Your task to perform on an android device: set the stopwatch Image 0: 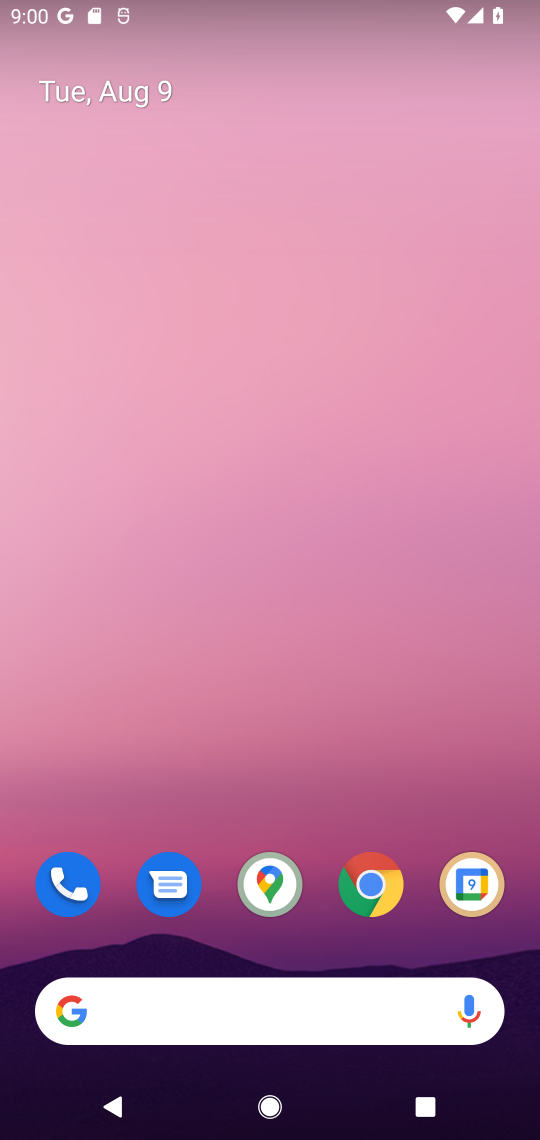
Step 0: drag from (294, 937) to (341, 320)
Your task to perform on an android device: set the stopwatch Image 1: 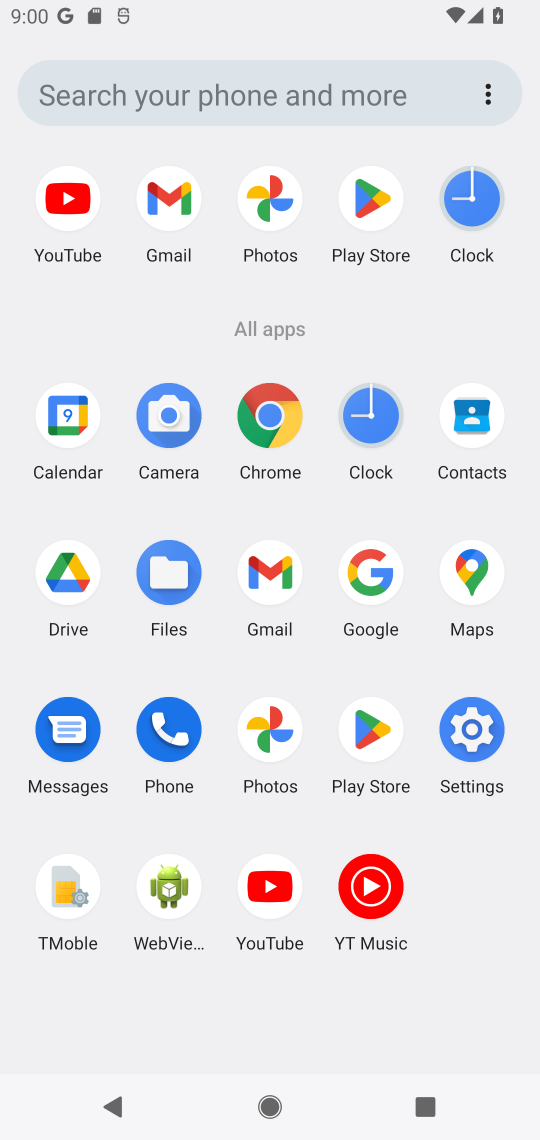
Step 1: click (381, 408)
Your task to perform on an android device: set the stopwatch Image 2: 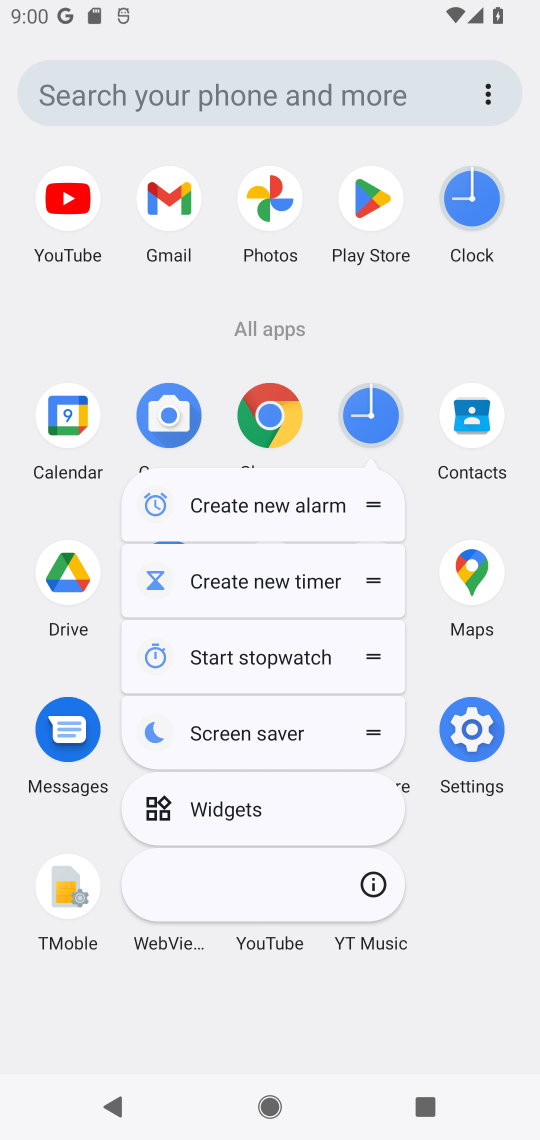
Step 2: click (366, 412)
Your task to perform on an android device: set the stopwatch Image 3: 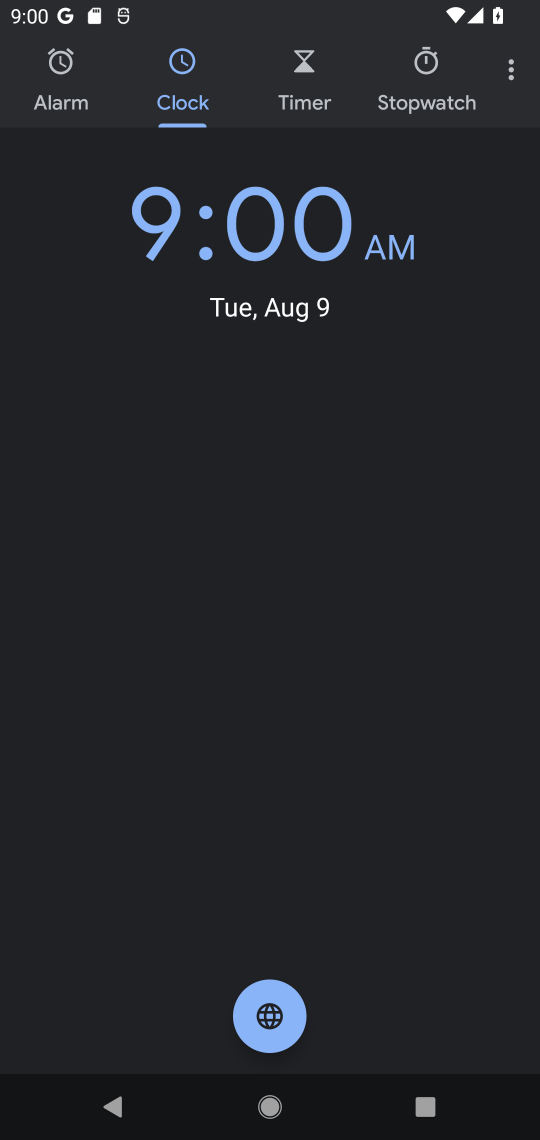
Step 3: click (413, 66)
Your task to perform on an android device: set the stopwatch Image 4: 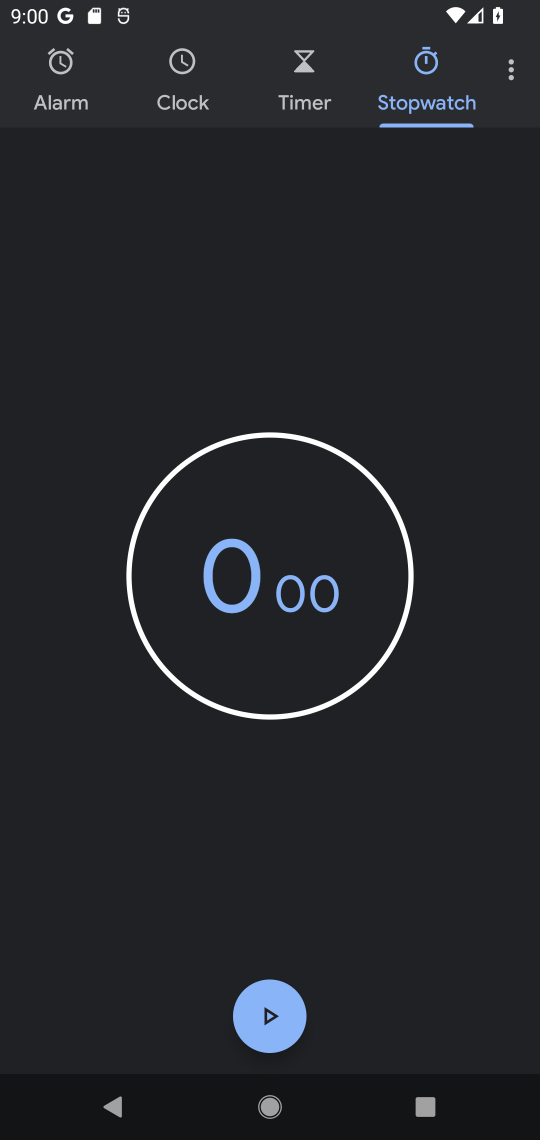
Step 4: task complete